Your task to perform on an android device: create a new album in the google photos Image 0: 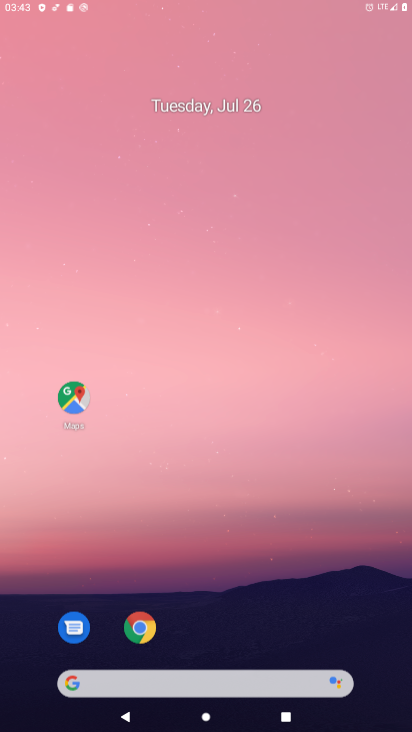
Step 0: drag from (281, 624) to (298, 107)
Your task to perform on an android device: create a new album in the google photos Image 1: 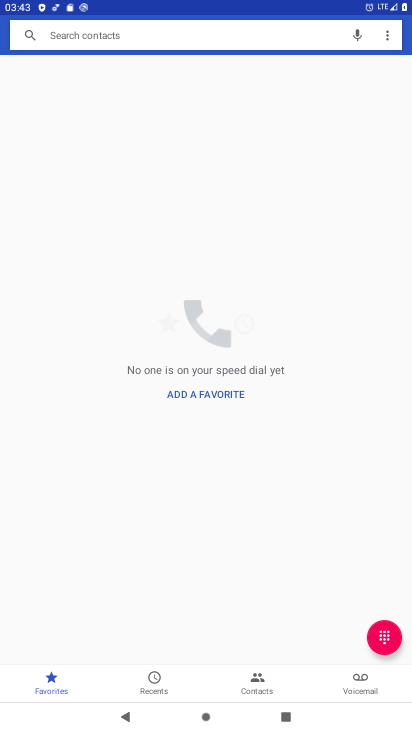
Step 1: press home button
Your task to perform on an android device: create a new album in the google photos Image 2: 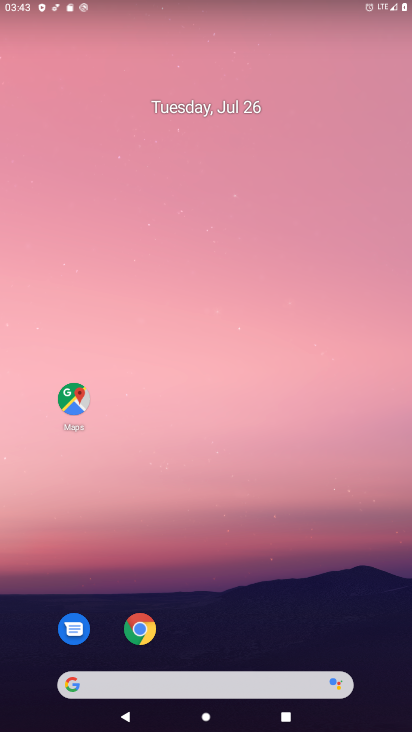
Step 2: drag from (233, 625) to (265, 124)
Your task to perform on an android device: create a new album in the google photos Image 3: 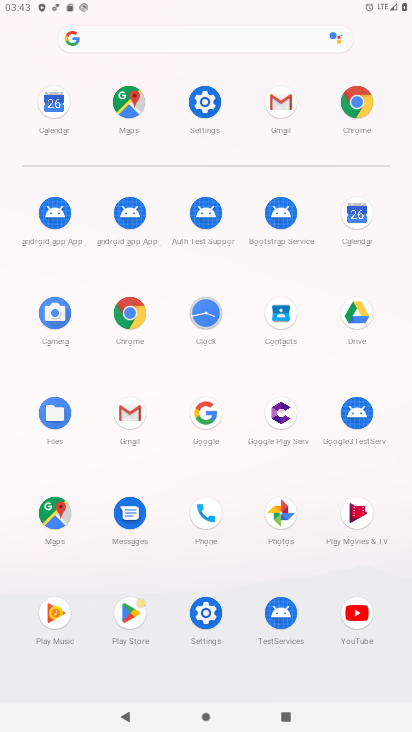
Step 3: click (275, 512)
Your task to perform on an android device: create a new album in the google photos Image 4: 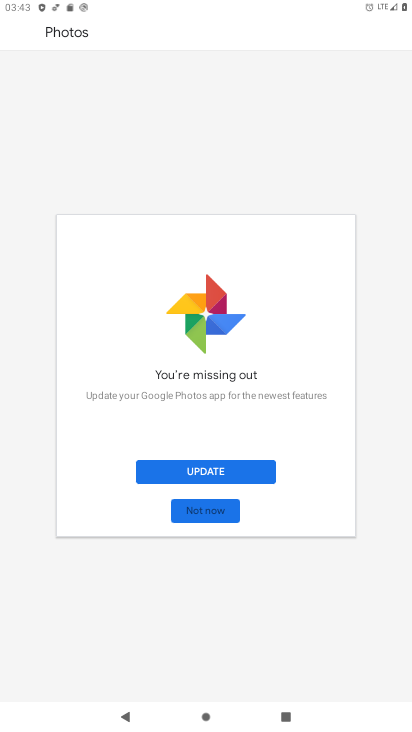
Step 4: click (237, 477)
Your task to perform on an android device: create a new album in the google photos Image 5: 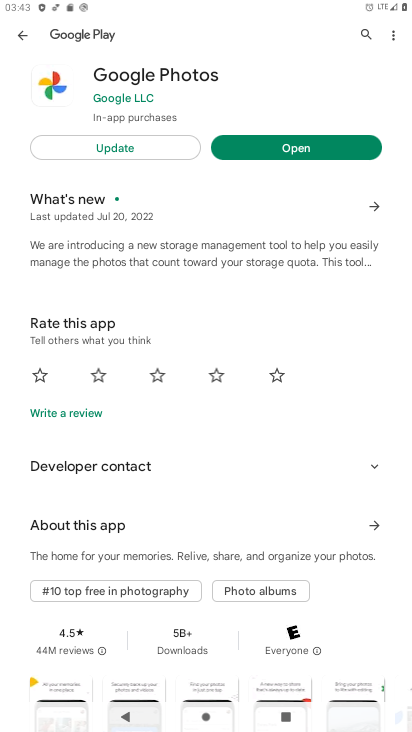
Step 5: click (131, 143)
Your task to perform on an android device: create a new album in the google photos Image 6: 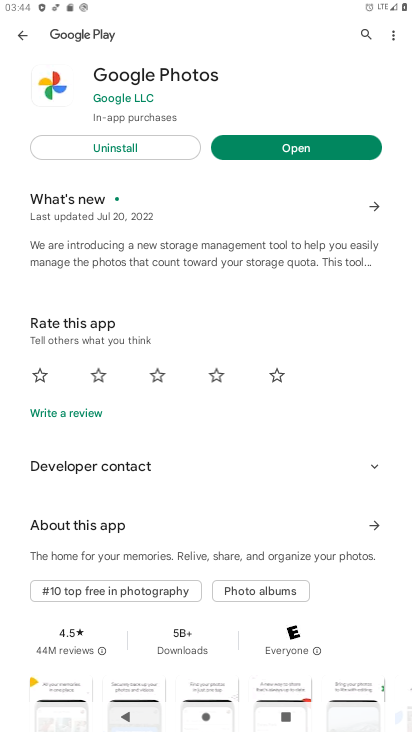
Step 6: click (312, 144)
Your task to perform on an android device: create a new album in the google photos Image 7: 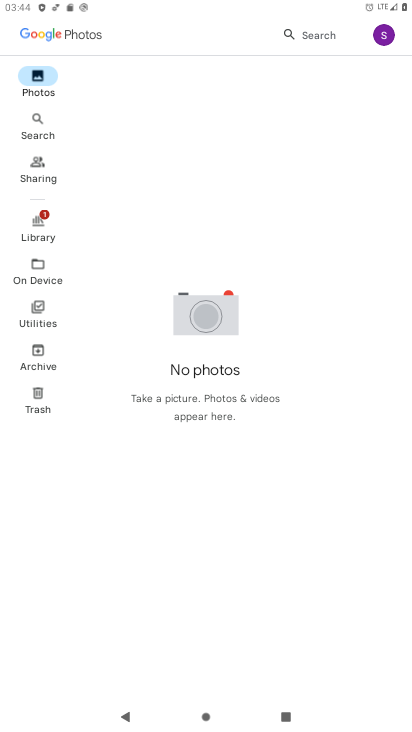
Step 7: task complete